Your task to perform on an android device: Open location settings Image 0: 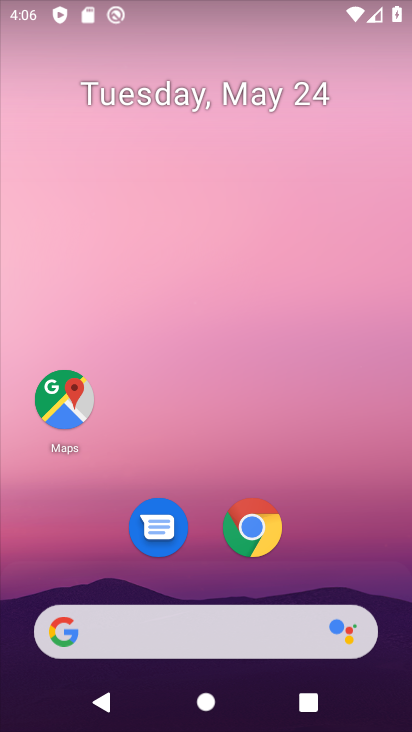
Step 0: drag from (115, 525) to (241, 61)
Your task to perform on an android device: Open location settings Image 1: 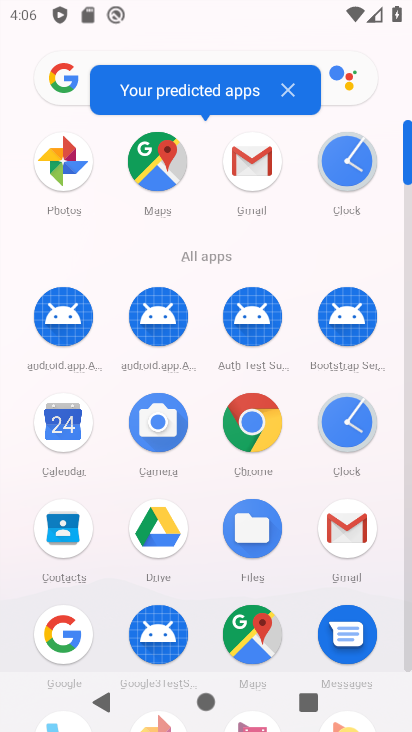
Step 1: drag from (111, 617) to (258, 274)
Your task to perform on an android device: Open location settings Image 2: 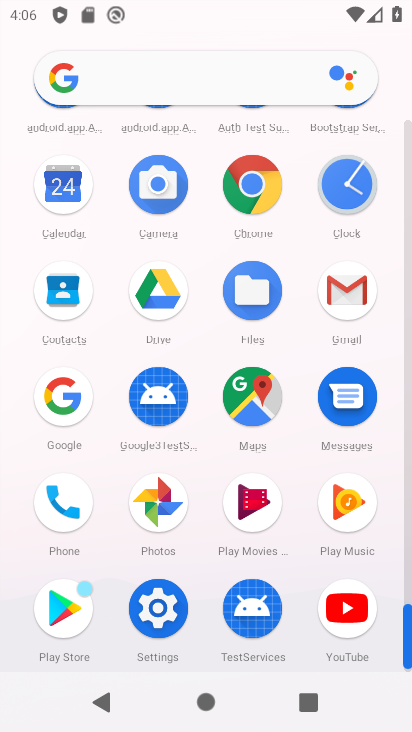
Step 2: click (153, 620)
Your task to perform on an android device: Open location settings Image 3: 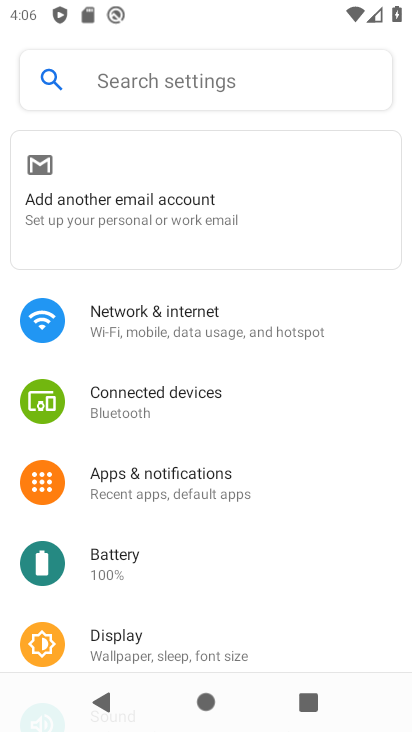
Step 3: drag from (172, 598) to (347, 184)
Your task to perform on an android device: Open location settings Image 4: 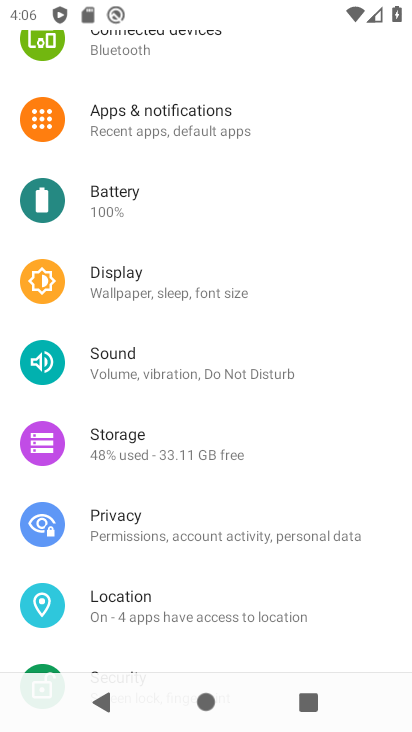
Step 4: drag from (178, 566) to (313, 274)
Your task to perform on an android device: Open location settings Image 5: 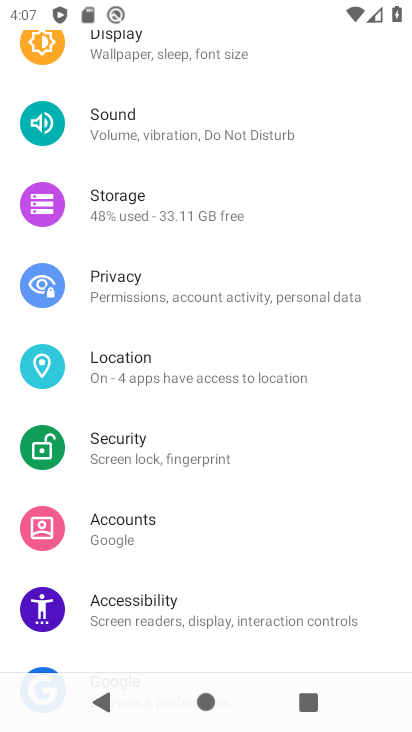
Step 5: click (144, 363)
Your task to perform on an android device: Open location settings Image 6: 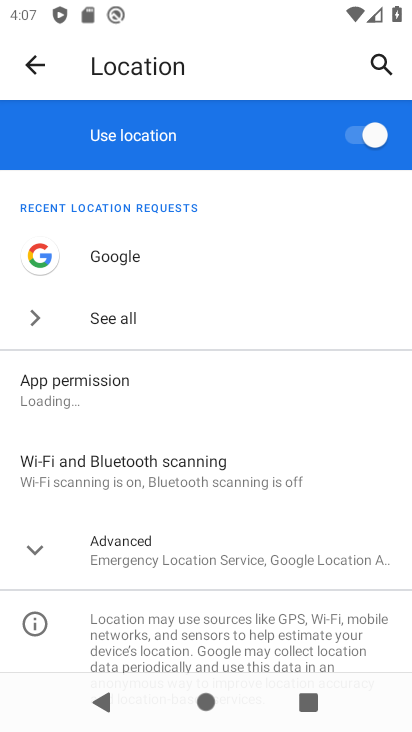
Step 6: task complete